Your task to perform on an android device: Go to battery settings Image 0: 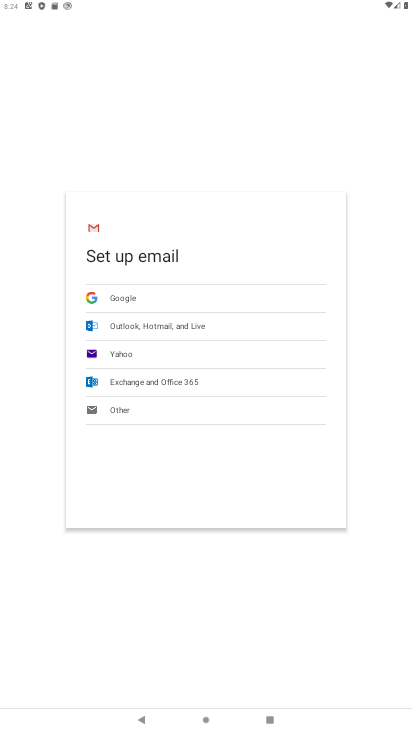
Step 0: press home button
Your task to perform on an android device: Go to battery settings Image 1: 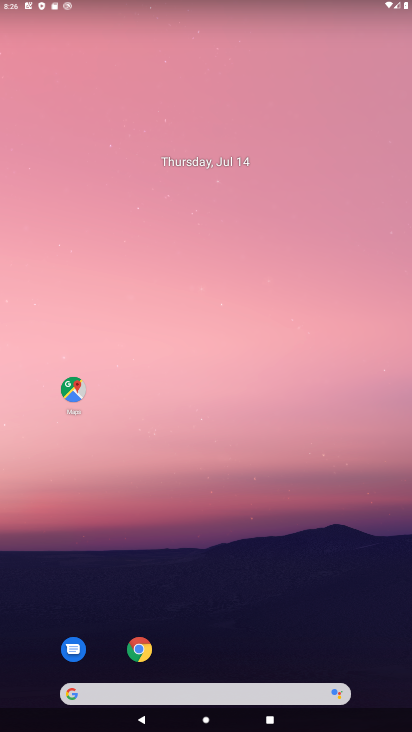
Step 1: drag from (239, 718) to (233, 65)
Your task to perform on an android device: Go to battery settings Image 2: 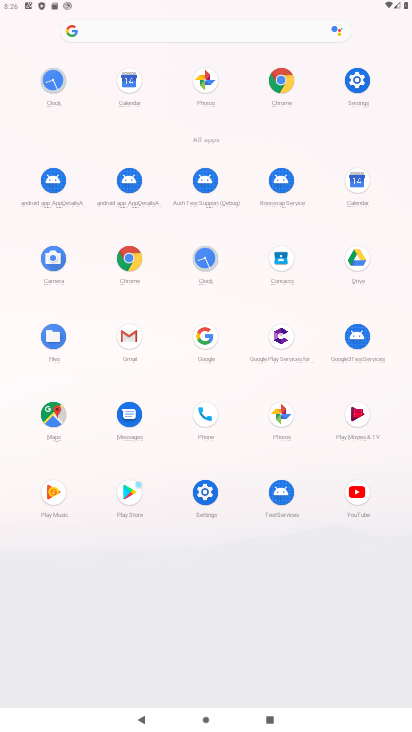
Step 2: click (362, 85)
Your task to perform on an android device: Go to battery settings Image 3: 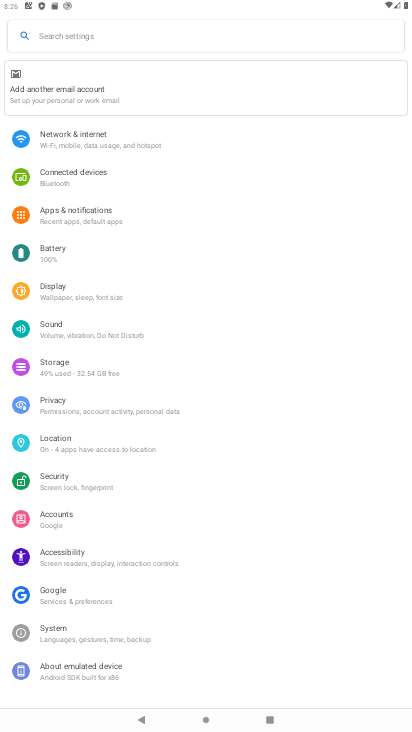
Step 3: click (87, 253)
Your task to perform on an android device: Go to battery settings Image 4: 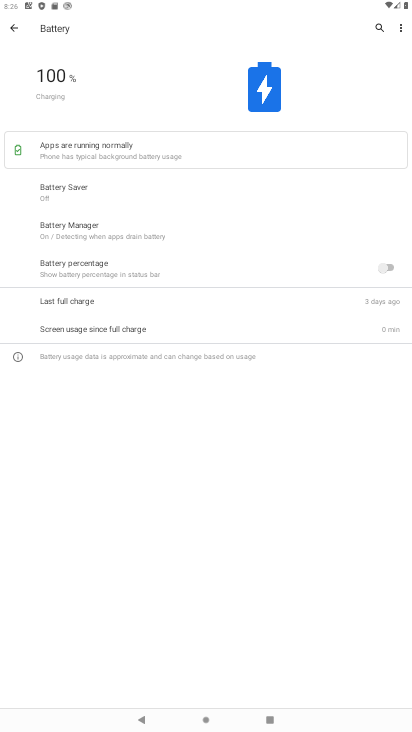
Step 4: task complete